Your task to perform on an android device: What's on my calendar tomorrow? Image 0: 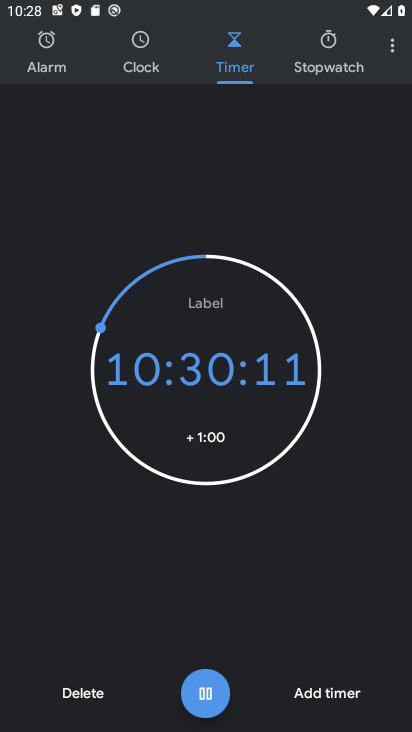
Step 0: press home button
Your task to perform on an android device: What's on my calendar tomorrow? Image 1: 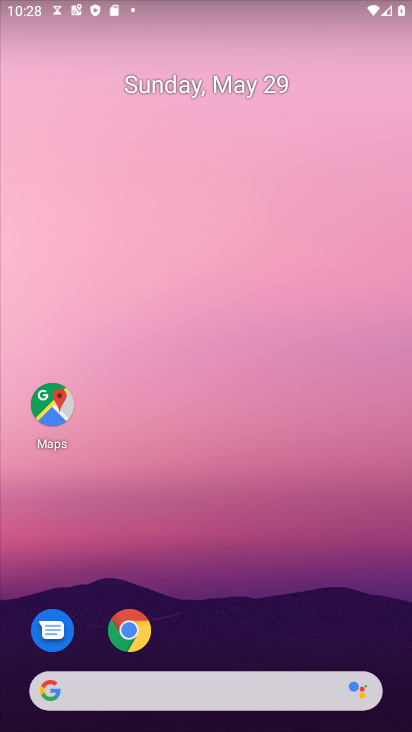
Step 1: click (240, 88)
Your task to perform on an android device: What's on my calendar tomorrow? Image 2: 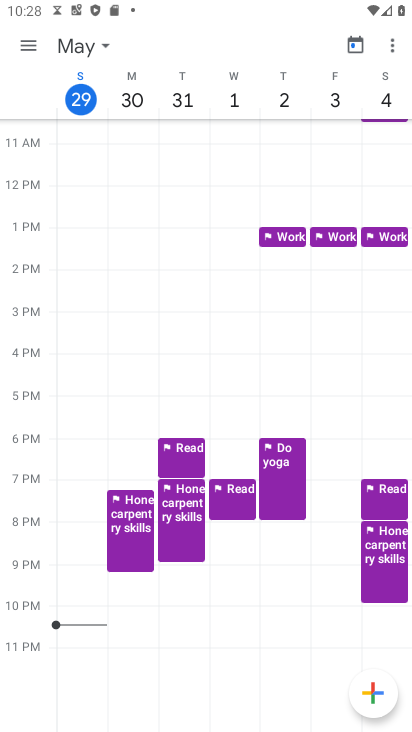
Step 2: click (21, 46)
Your task to perform on an android device: What's on my calendar tomorrow? Image 3: 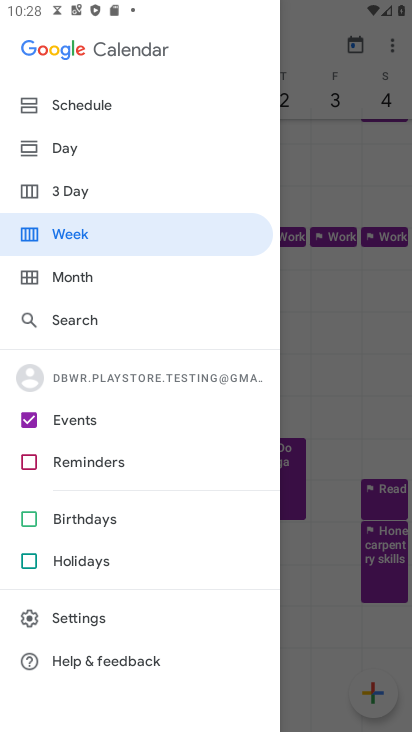
Step 3: click (84, 103)
Your task to perform on an android device: What's on my calendar tomorrow? Image 4: 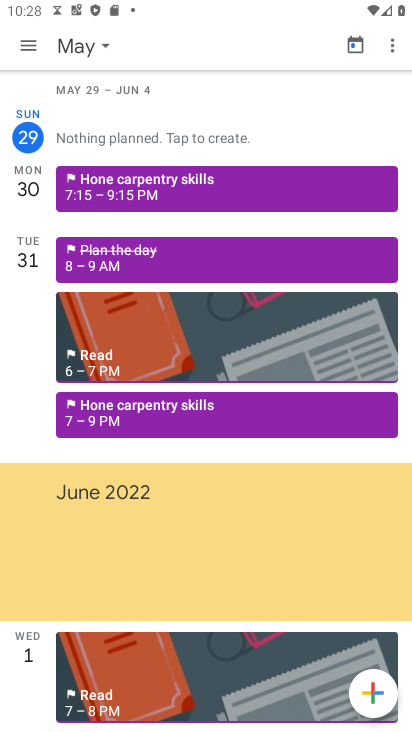
Step 4: click (93, 47)
Your task to perform on an android device: What's on my calendar tomorrow? Image 5: 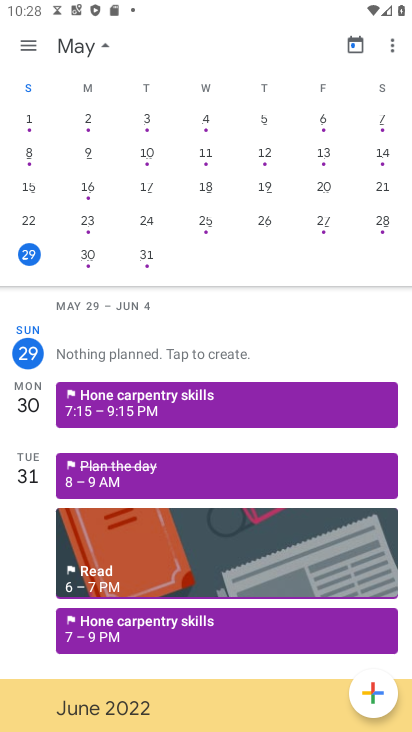
Step 5: click (143, 259)
Your task to perform on an android device: What's on my calendar tomorrow? Image 6: 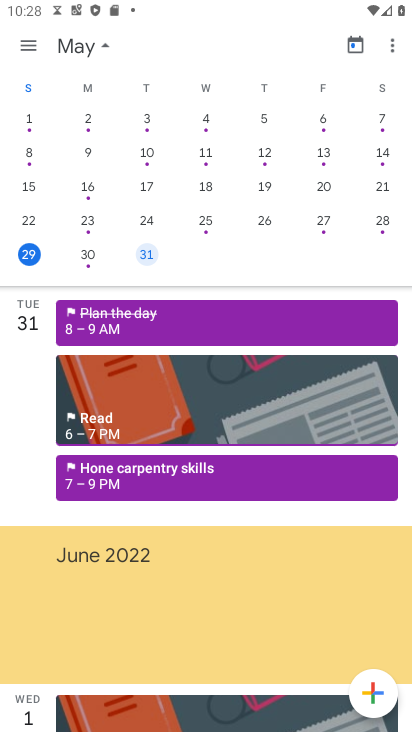
Step 6: task complete